Your task to perform on an android device: change notification settings in the gmail app Image 0: 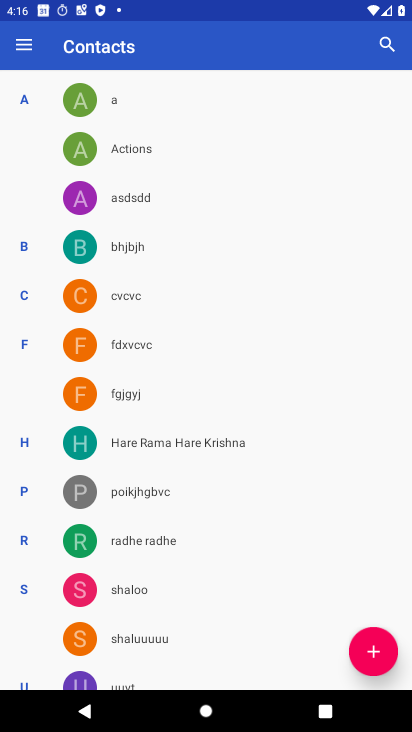
Step 0: press home button
Your task to perform on an android device: change notification settings in the gmail app Image 1: 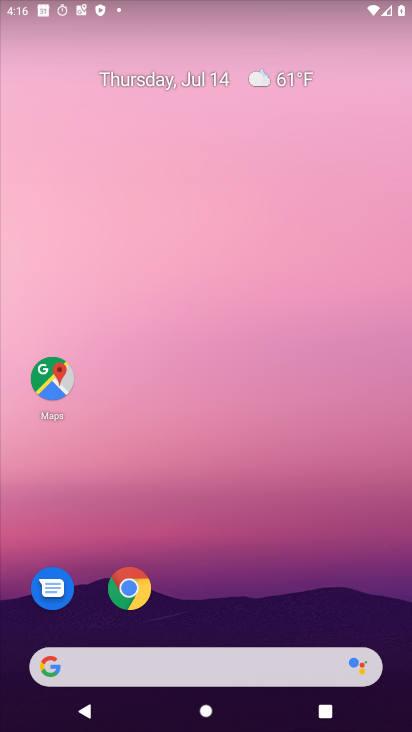
Step 1: drag from (219, 668) to (239, 175)
Your task to perform on an android device: change notification settings in the gmail app Image 2: 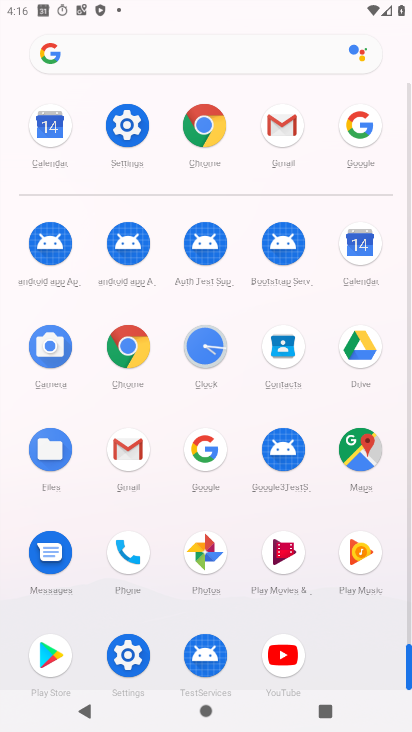
Step 2: click (282, 123)
Your task to perform on an android device: change notification settings in the gmail app Image 3: 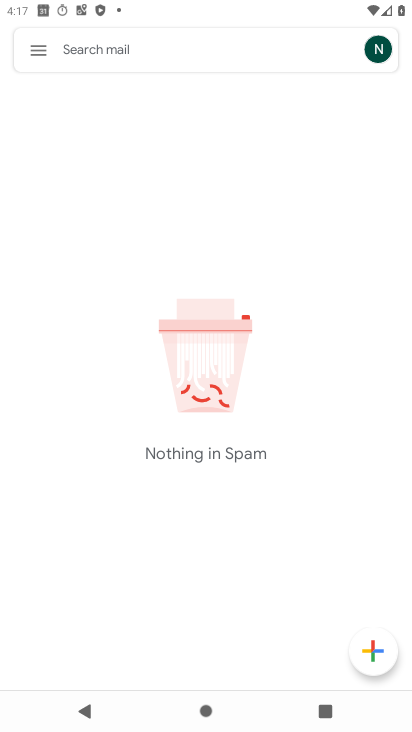
Step 3: click (37, 48)
Your task to perform on an android device: change notification settings in the gmail app Image 4: 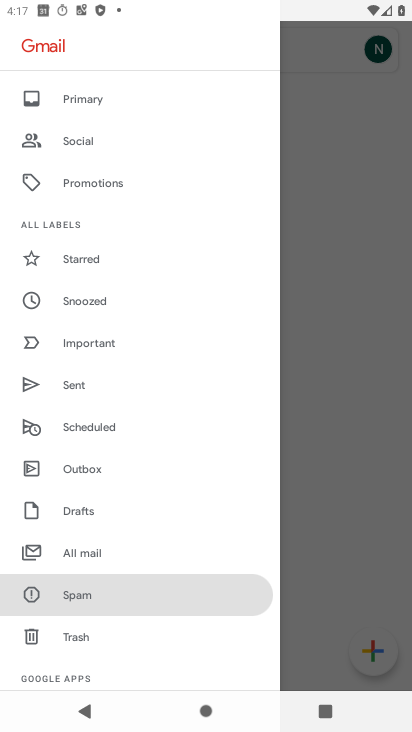
Step 4: drag from (84, 369) to (131, 271)
Your task to perform on an android device: change notification settings in the gmail app Image 5: 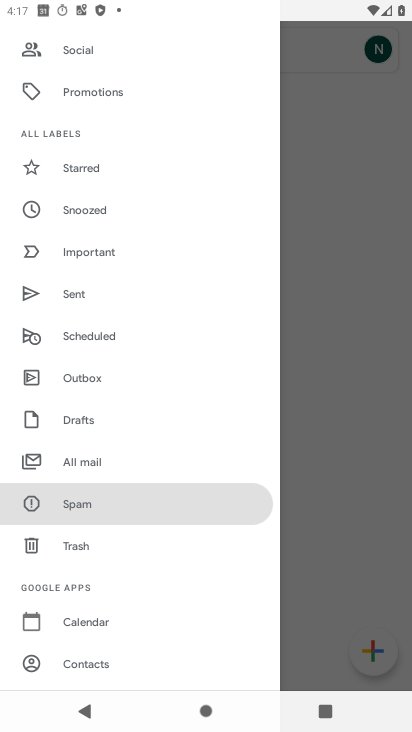
Step 5: drag from (96, 428) to (166, 333)
Your task to perform on an android device: change notification settings in the gmail app Image 6: 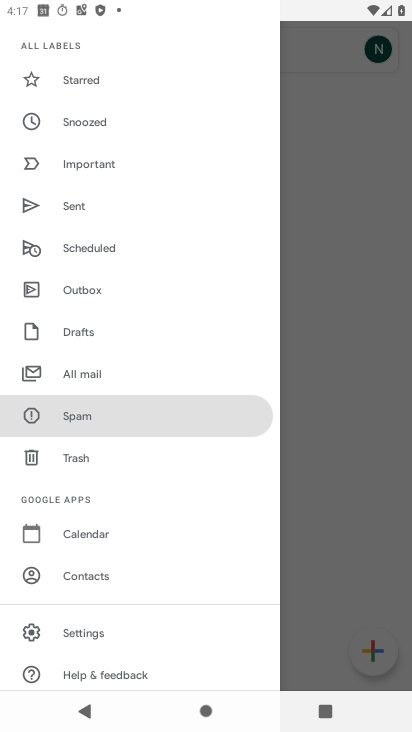
Step 6: click (97, 626)
Your task to perform on an android device: change notification settings in the gmail app Image 7: 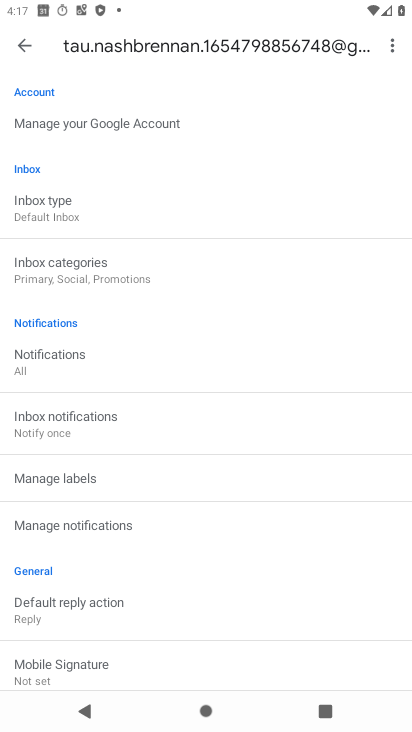
Step 7: click (73, 525)
Your task to perform on an android device: change notification settings in the gmail app Image 8: 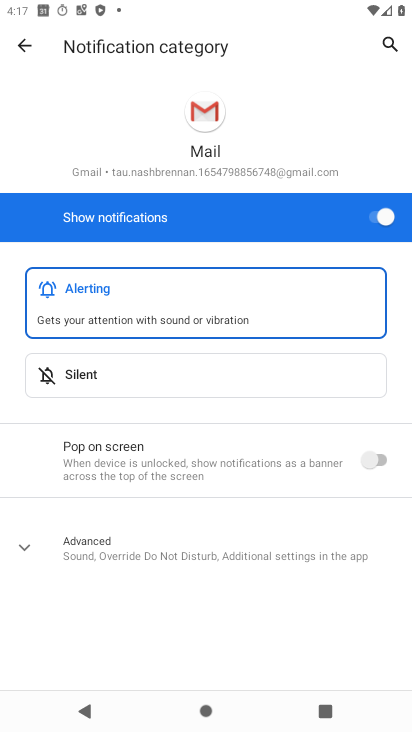
Step 8: click (384, 223)
Your task to perform on an android device: change notification settings in the gmail app Image 9: 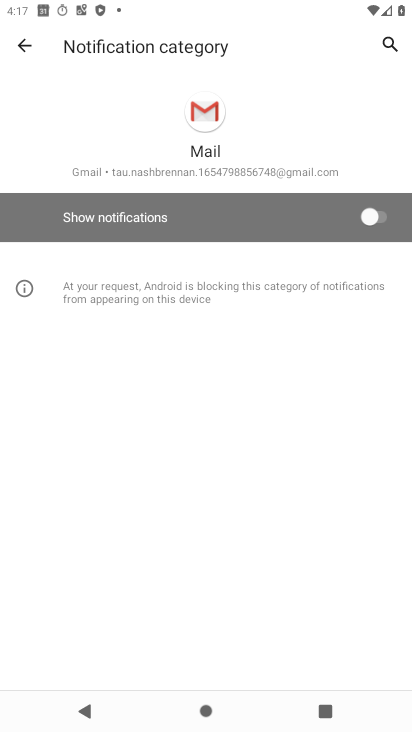
Step 9: task complete